Your task to perform on an android device: toggle airplane mode Image 0: 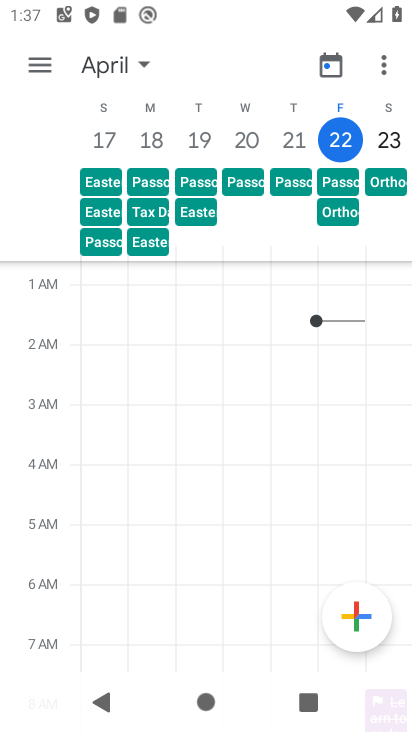
Step 0: press home button
Your task to perform on an android device: toggle airplane mode Image 1: 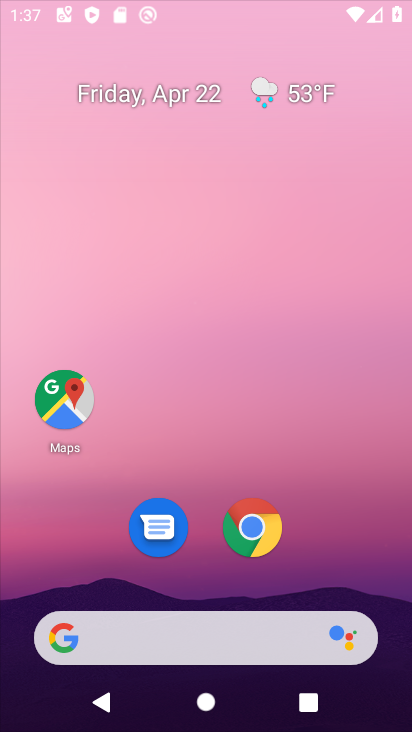
Step 1: drag from (372, 8) to (331, 524)
Your task to perform on an android device: toggle airplane mode Image 2: 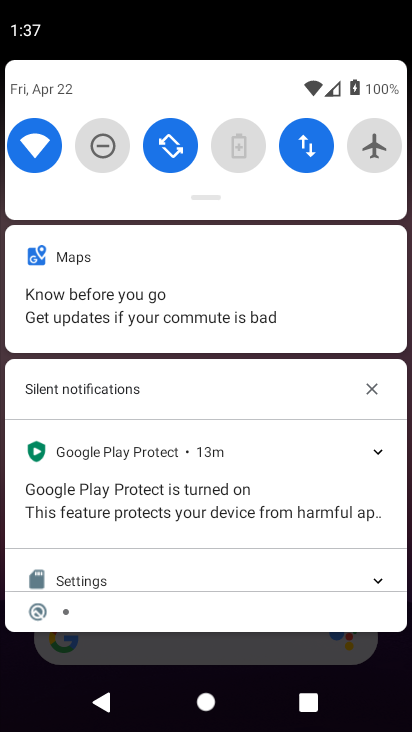
Step 2: click (381, 147)
Your task to perform on an android device: toggle airplane mode Image 3: 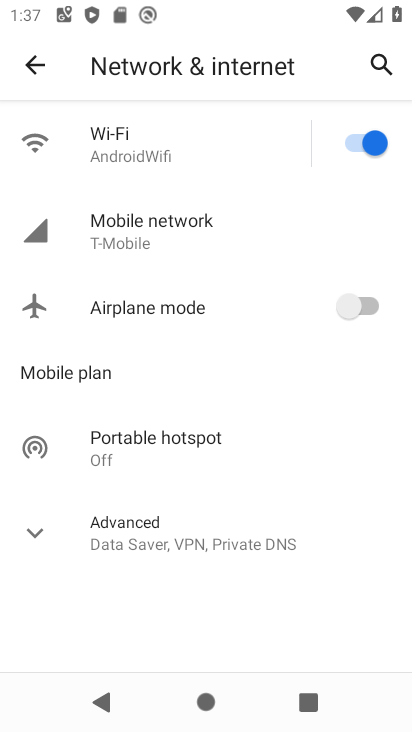
Step 3: click (357, 300)
Your task to perform on an android device: toggle airplane mode Image 4: 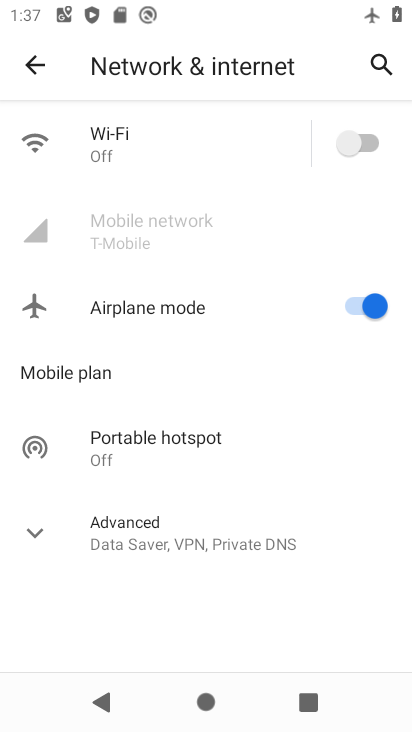
Step 4: task complete